Your task to perform on an android device: Add bose soundlink mini to the cart on ebay Image 0: 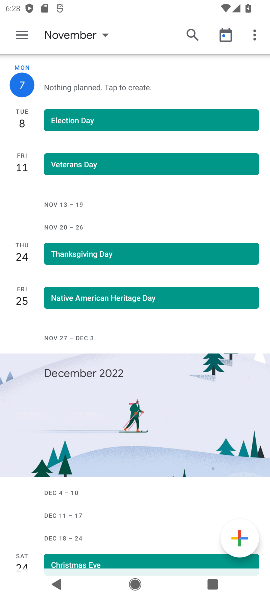
Step 0: press home button
Your task to perform on an android device: Add bose soundlink mini to the cart on ebay Image 1: 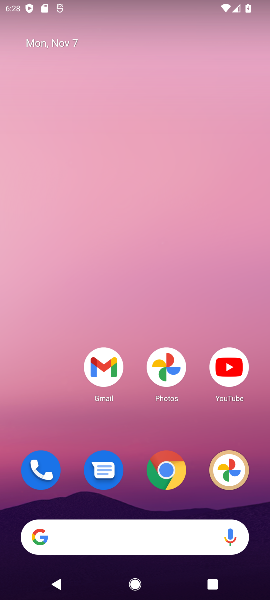
Step 1: click (171, 478)
Your task to perform on an android device: Add bose soundlink mini to the cart on ebay Image 2: 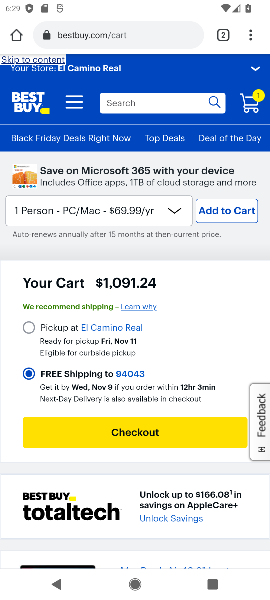
Step 2: click (126, 34)
Your task to perform on an android device: Add bose soundlink mini to the cart on ebay Image 3: 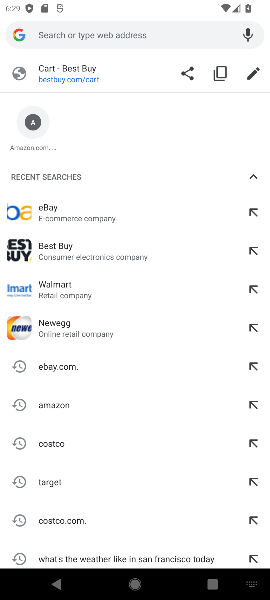
Step 3: type "ebay"
Your task to perform on an android device: Add bose soundlink mini to the cart on ebay Image 4: 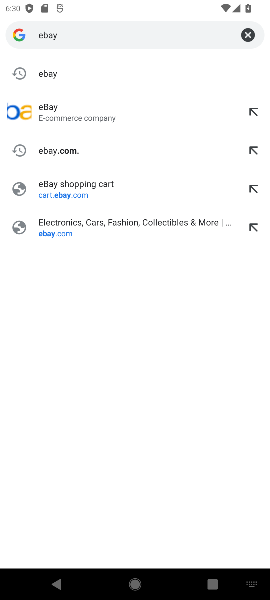
Step 4: click (108, 109)
Your task to perform on an android device: Add bose soundlink mini to the cart on ebay Image 5: 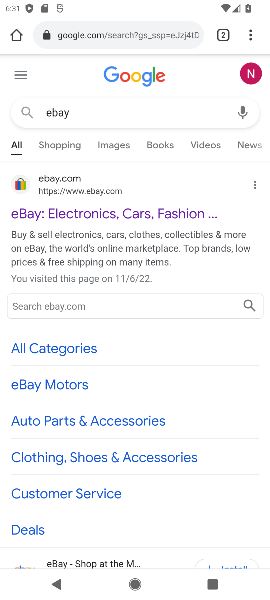
Step 5: click (115, 219)
Your task to perform on an android device: Add bose soundlink mini to the cart on ebay Image 6: 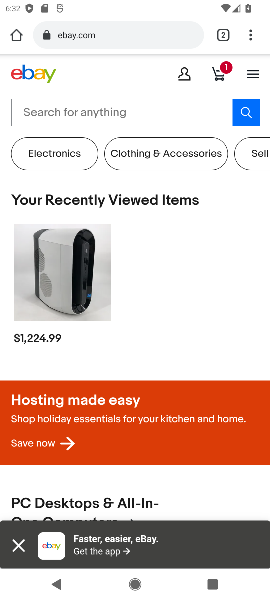
Step 6: click (93, 107)
Your task to perform on an android device: Add bose soundlink mini to the cart on ebay Image 7: 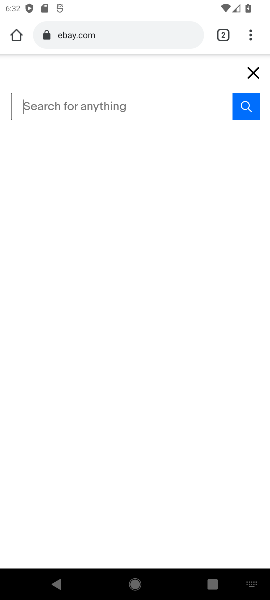
Step 7: type "bose soundlink mini "
Your task to perform on an android device: Add bose soundlink mini to the cart on ebay Image 8: 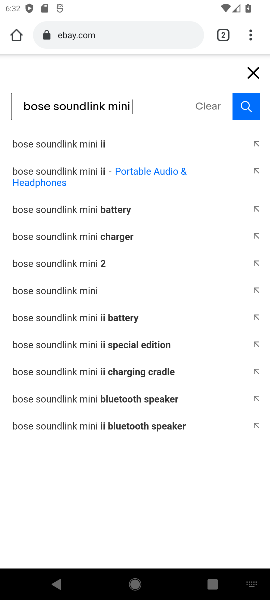
Step 8: click (247, 111)
Your task to perform on an android device: Add bose soundlink mini to the cart on ebay Image 9: 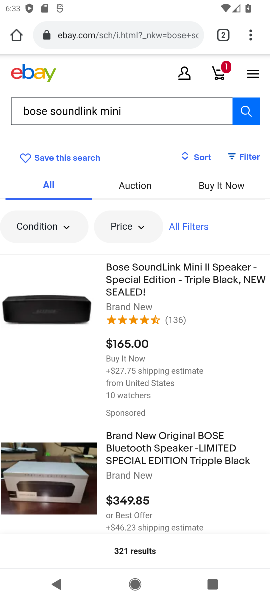
Step 9: click (245, 113)
Your task to perform on an android device: Add bose soundlink mini to the cart on ebay Image 10: 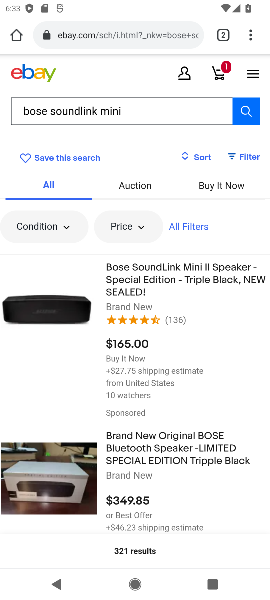
Step 10: click (240, 111)
Your task to perform on an android device: Add bose soundlink mini to the cart on ebay Image 11: 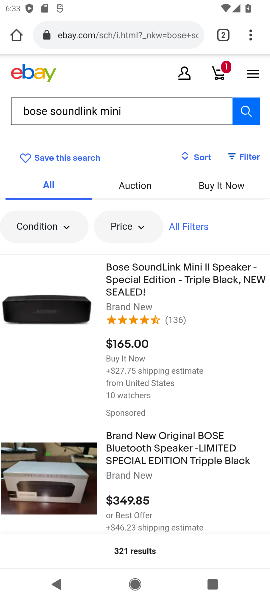
Step 11: click (177, 282)
Your task to perform on an android device: Add bose soundlink mini to the cart on ebay Image 12: 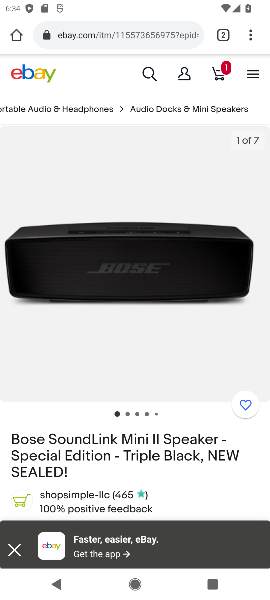
Step 12: drag from (183, 457) to (182, 135)
Your task to perform on an android device: Add bose soundlink mini to the cart on ebay Image 13: 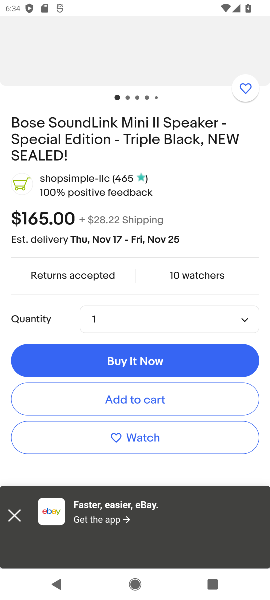
Step 13: drag from (114, 420) to (133, 241)
Your task to perform on an android device: Add bose soundlink mini to the cart on ebay Image 14: 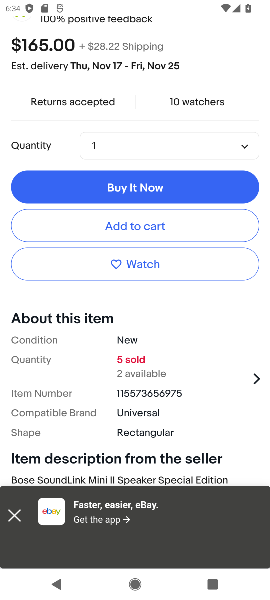
Step 14: click (117, 392)
Your task to perform on an android device: Add bose soundlink mini to the cart on ebay Image 15: 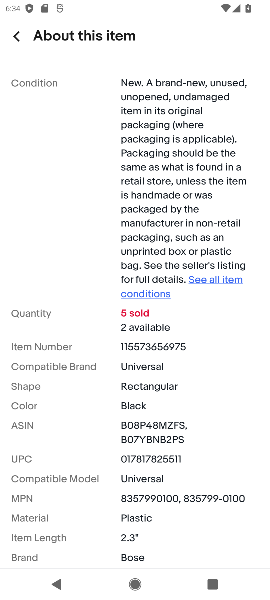
Step 15: click (122, 228)
Your task to perform on an android device: Add bose soundlink mini to the cart on ebay Image 16: 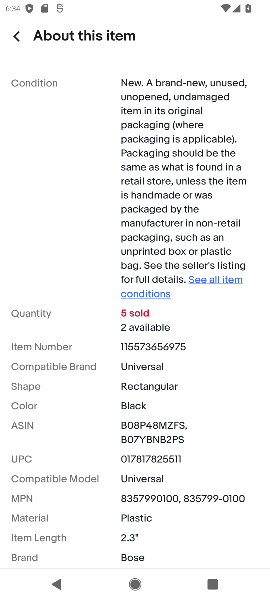
Step 16: drag from (88, 266) to (119, 526)
Your task to perform on an android device: Add bose soundlink mini to the cart on ebay Image 17: 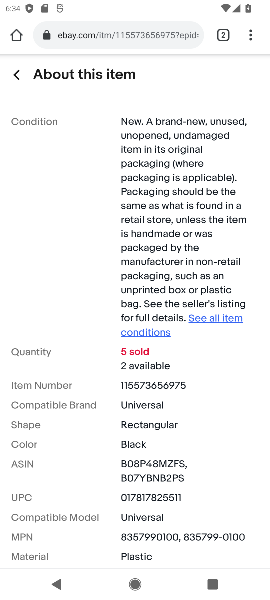
Step 17: drag from (159, 314) to (176, 514)
Your task to perform on an android device: Add bose soundlink mini to the cart on ebay Image 18: 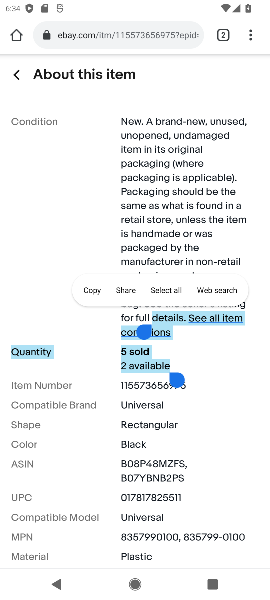
Step 18: drag from (139, 116) to (151, 480)
Your task to perform on an android device: Add bose soundlink mini to the cart on ebay Image 19: 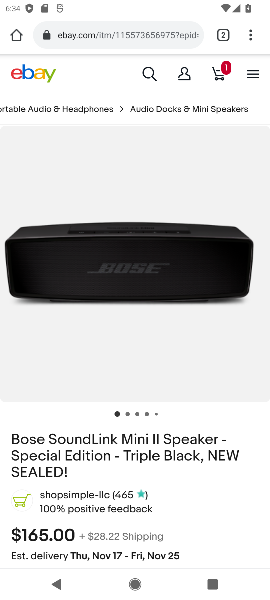
Step 19: drag from (123, 299) to (111, 503)
Your task to perform on an android device: Add bose soundlink mini to the cart on ebay Image 20: 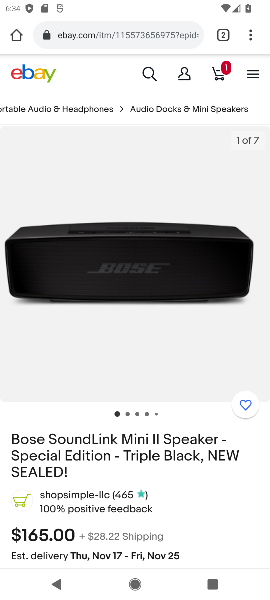
Step 20: drag from (180, 424) to (175, 188)
Your task to perform on an android device: Add bose soundlink mini to the cart on ebay Image 21: 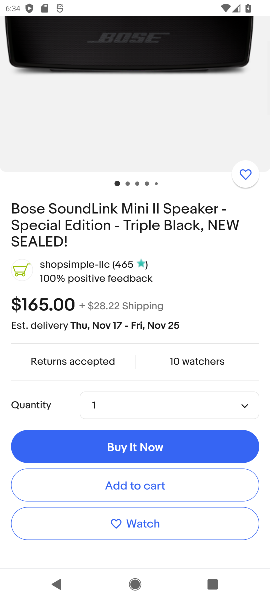
Step 21: click (141, 132)
Your task to perform on an android device: Add bose soundlink mini to the cart on ebay Image 22: 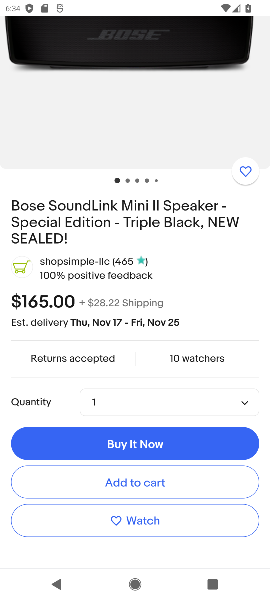
Step 22: click (153, 487)
Your task to perform on an android device: Add bose soundlink mini to the cart on ebay Image 23: 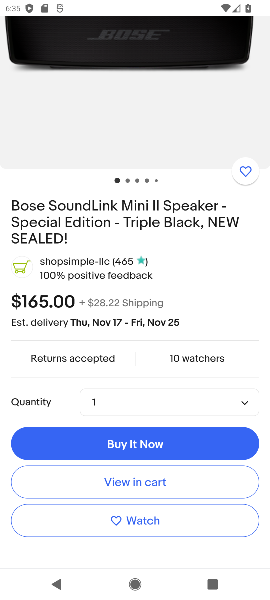
Step 23: task complete